Your task to perform on an android device: Is it going to rain this weekend? Image 0: 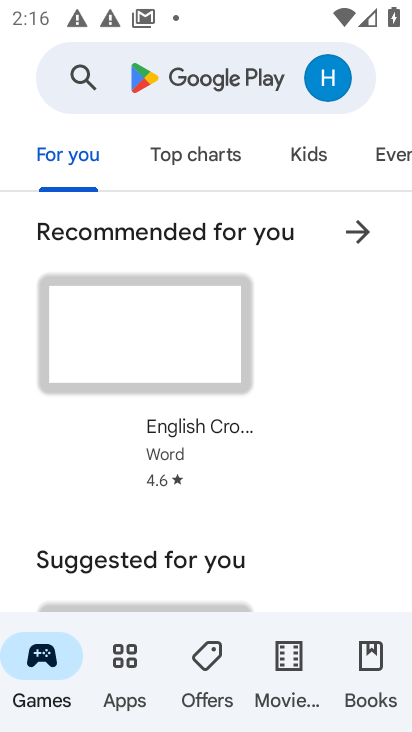
Step 0: press home button
Your task to perform on an android device: Is it going to rain this weekend? Image 1: 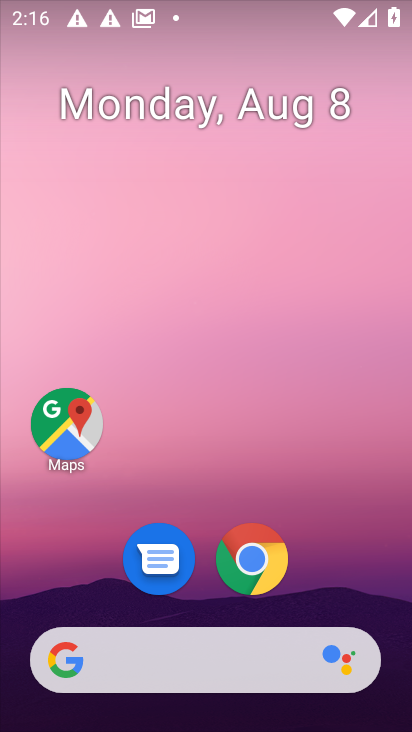
Step 1: drag from (191, 659) to (259, 197)
Your task to perform on an android device: Is it going to rain this weekend? Image 2: 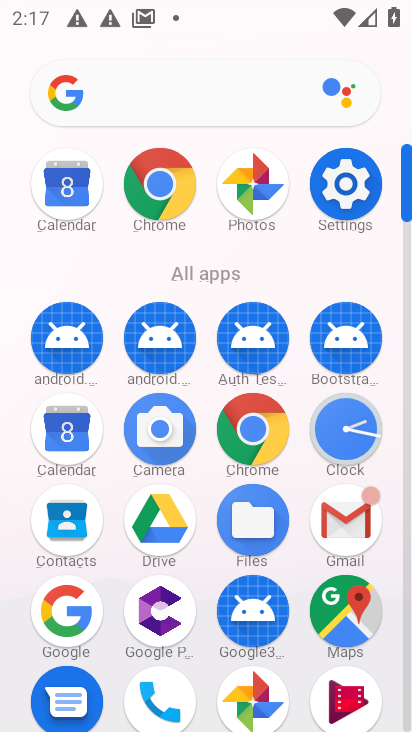
Step 2: click (66, 609)
Your task to perform on an android device: Is it going to rain this weekend? Image 3: 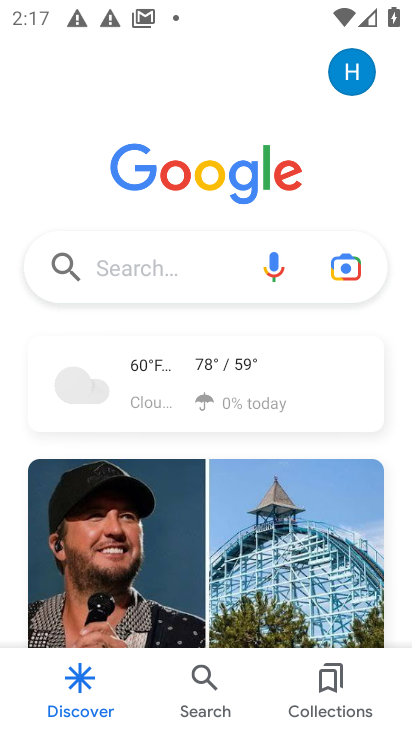
Step 3: click (178, 276)
Your task to perform on an android device: Is it going to rain this weekend? Image 4: 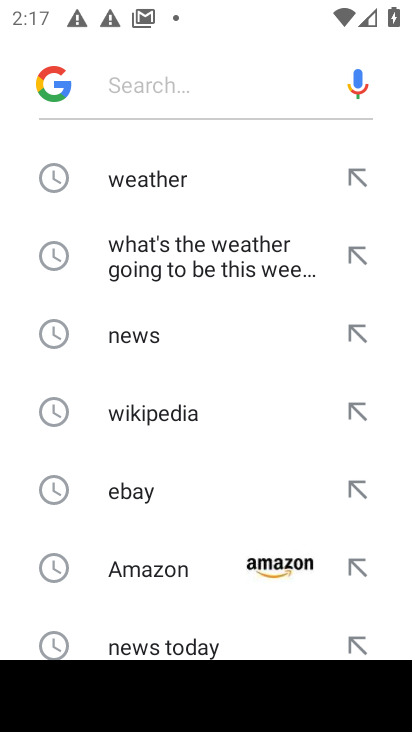
Step 4: type "Is it going to rain this weekend?"
Your task to perform on an android device: Is it going to rain this weekend? Image 5: 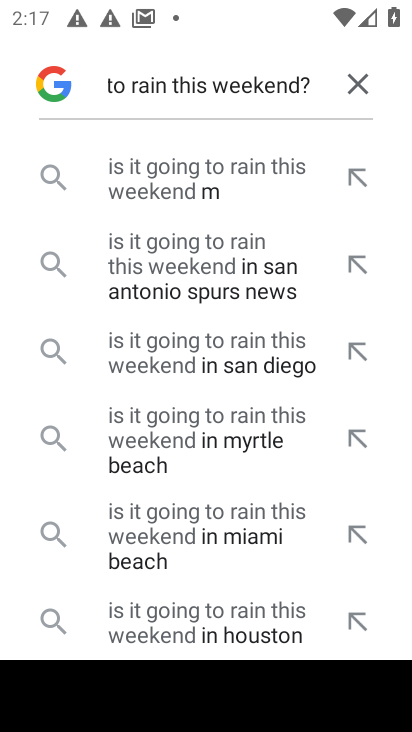
Step 5: click (211, 350)
Your task to perform on an android device: Is it going to rain this weekend? Image 6: 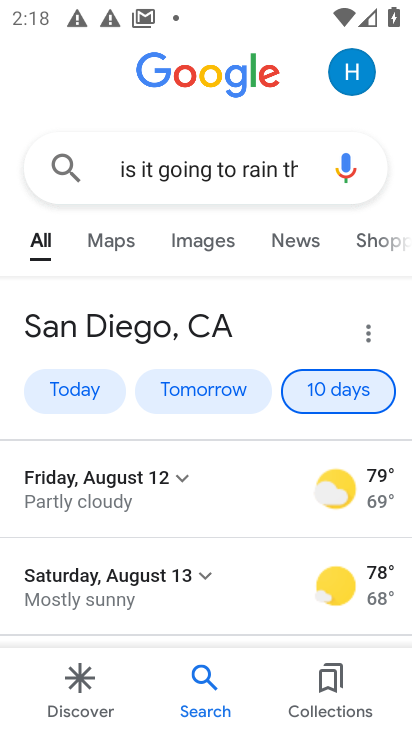
Step 6: task complete